Your task to perform on an android device: Show me productivity apps on the Play Store Image 0: 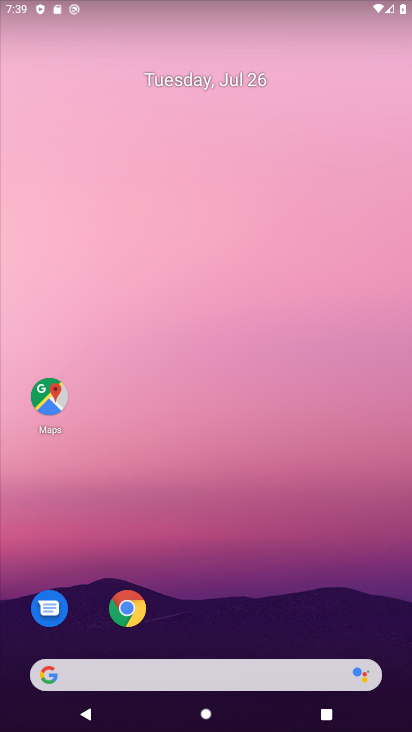
Step 0: drag from (69, 705) to (297, 25)
Your task to perform on an android device: Show me productivity apps on the Play Store Image 1: 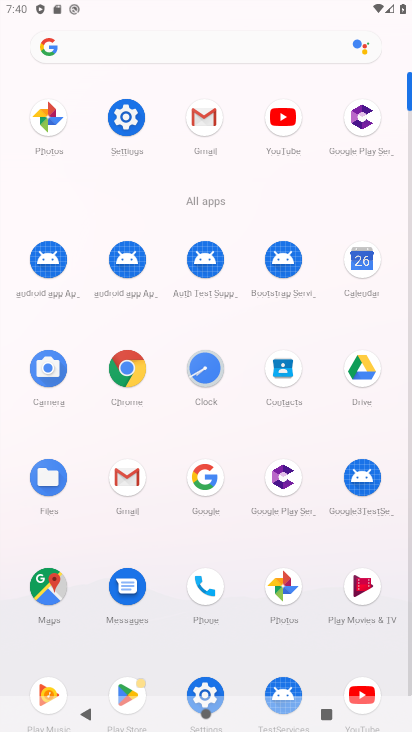
Step 1: click (138, 698)
Your task to perform on an android device: Show me productivity apps on the Play Store Image 2: 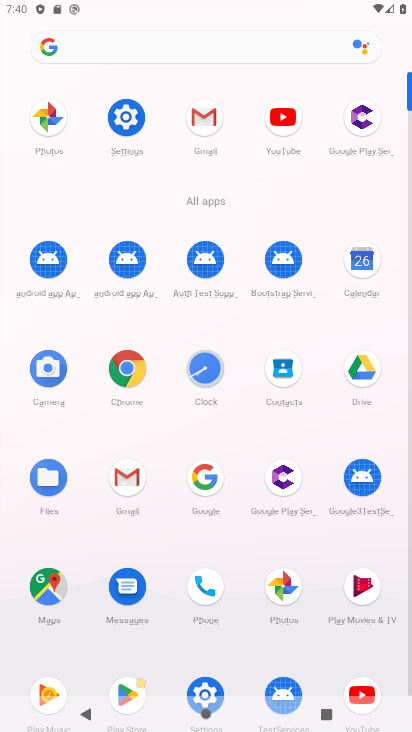
Step 2: click (124, 689)
Your task to perform on an android device: Show me productivity apps on the Play Store Image 3: 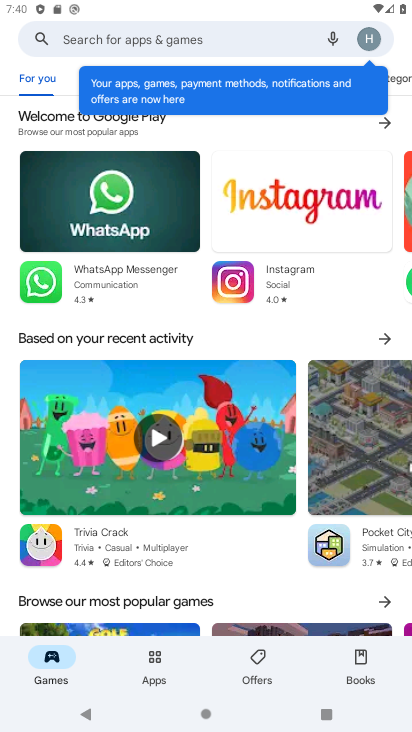
Step 3: click (85, 31)
Your task to perform on an android device: Show me productivity apps on the Play Store Image 4: 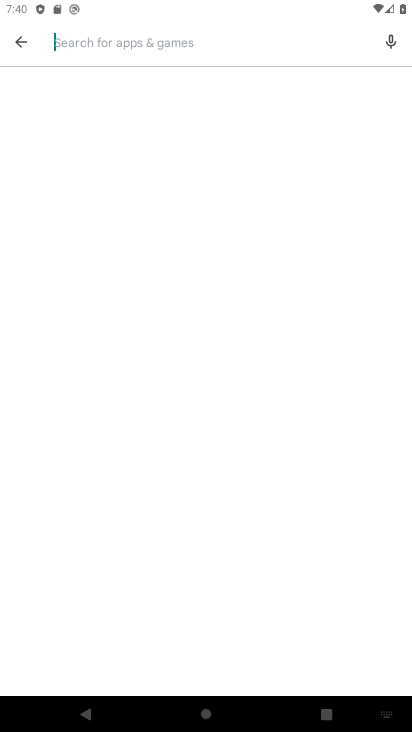
Step 4: type "productivity apps"
Your task to perform on an android device: Show me productivity apps on the Play Store Image 5: 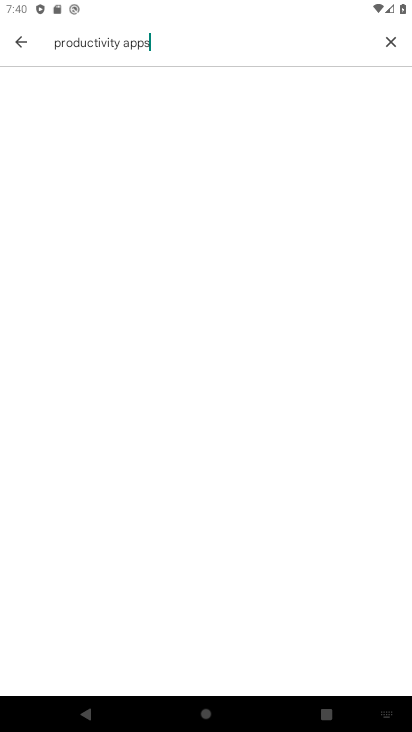
Step 5: type ""
Your task to perform on an android device: Show me productivity apps on the Play Store Image 6: 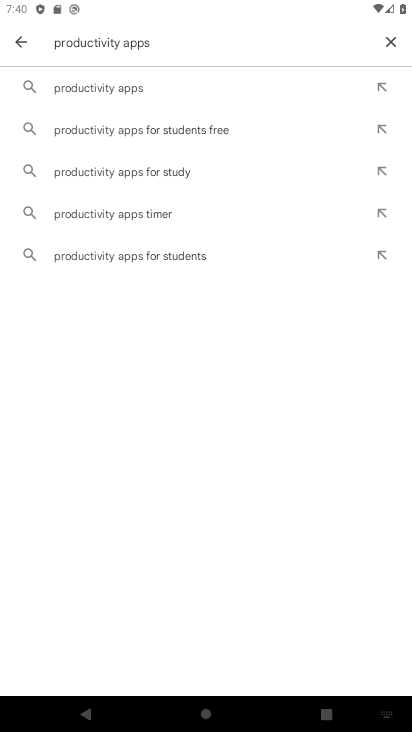
Step 6: click (67, 94)
Your task to perform on an android device: Show me productivity apps on the Play Store Image 7: 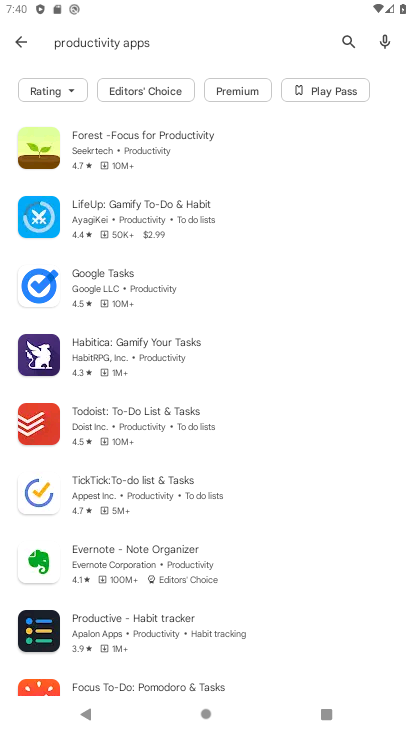
Step 7: task complete